Your task to perform on an android device: change keyboard looks Image 0: 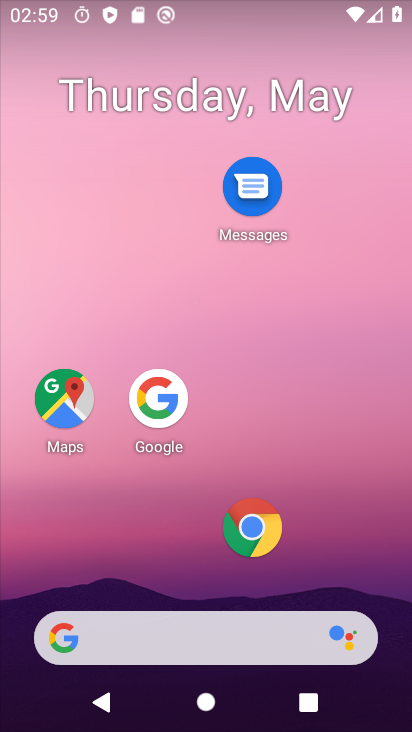
Step 0: click (273, 202)
Your task to perform on an android device: change keyboard looks Image 1: 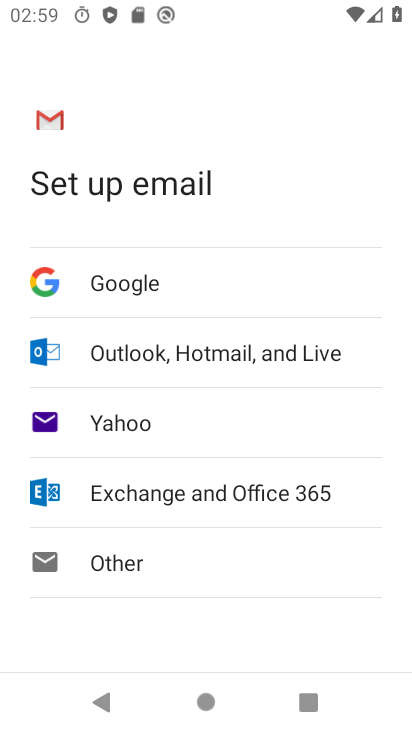
Step 1: press home button
Your task to perform on an android device: change keyboard looks Image 2: 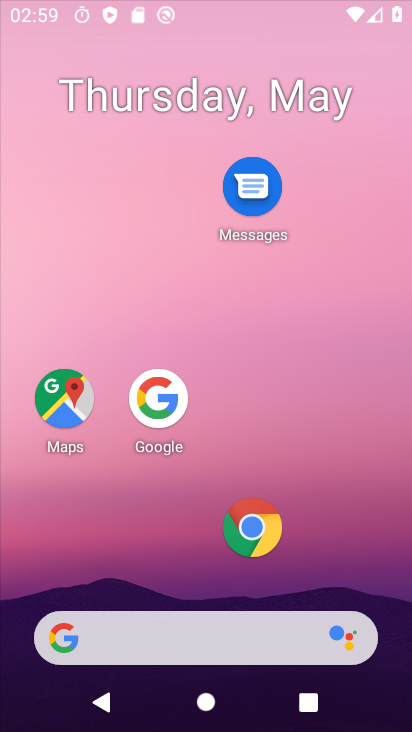
Step 2: drag from (192, 617) to (198, 100)
Your task to perform on an android device: change keyboard looks Image 3: 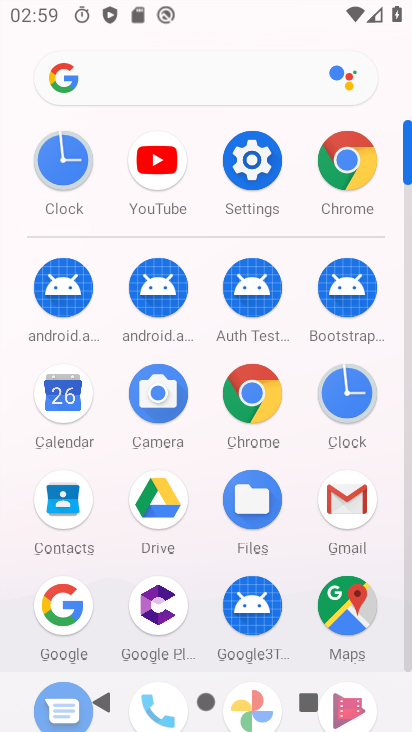
Step 3: drag from (204, 537) to (195, 239)
Your task to perform on an android device: change keyboard looks Image 4: 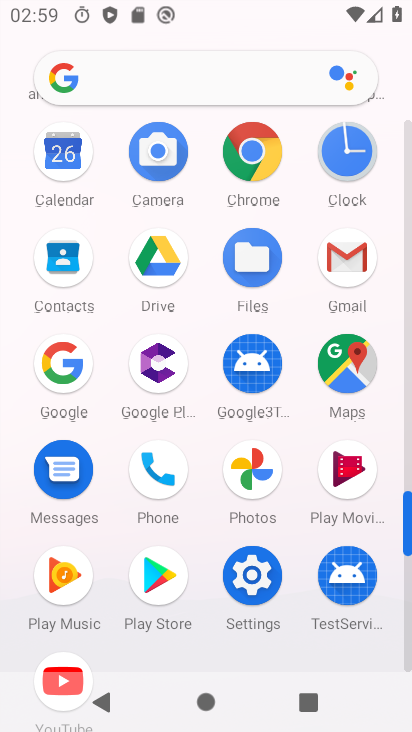
Step 4: click (246, 584)
Your task to perform on an android device: change keyboard looks Image 5: 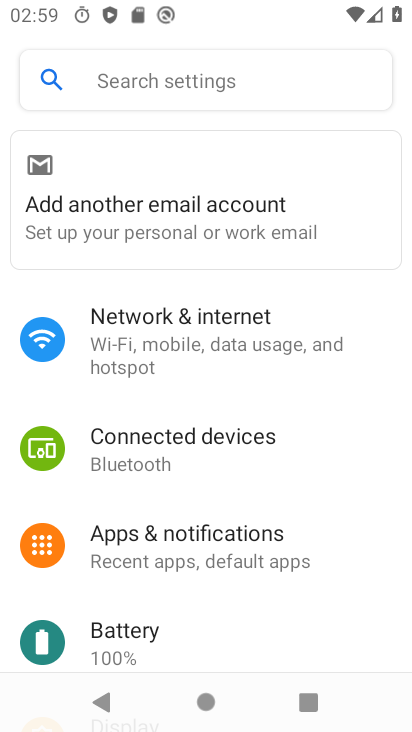
Step 5: drag from (223, 584) to (238, 80)
Your task to perform on an android device: change keyboard looks Image 6: 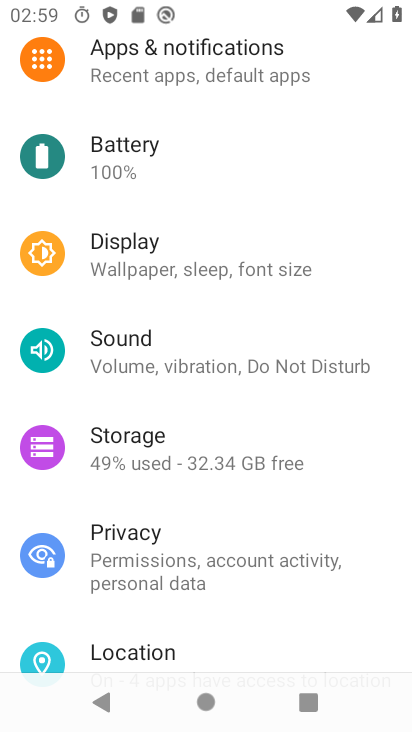
Step 6: drag from (231, 554) to (255, 165)
Your task to perform on an android device: change keyboard looks Image 7: 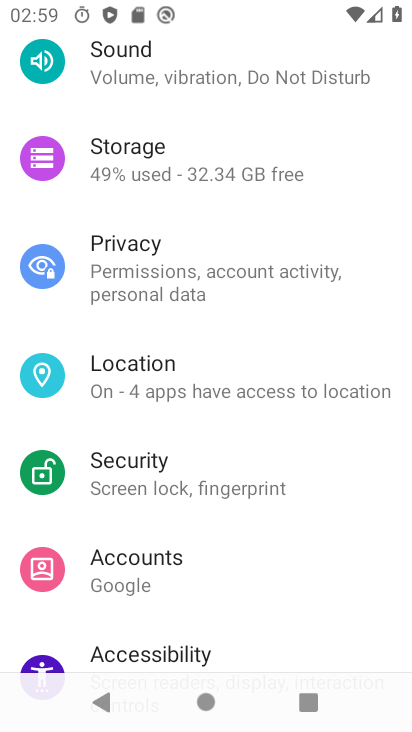
Step 7: drag from (213, 602) to (301, 37)
Your task to perform on an android device: change keyboard looks Image 8: 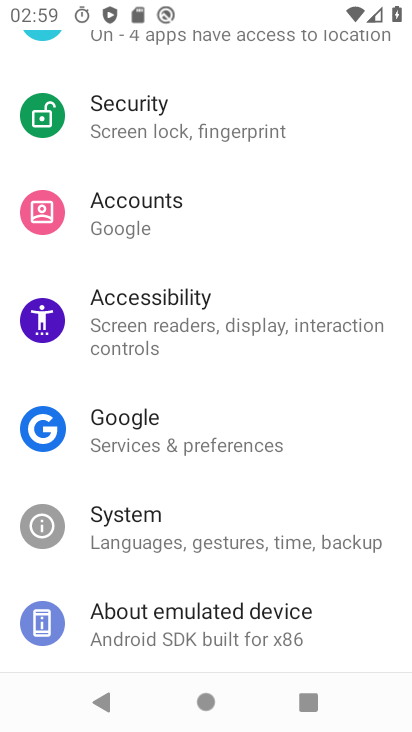
Step 8: click (172, 555)
Your task to perform on an android device: change keyboard looks Image 9: 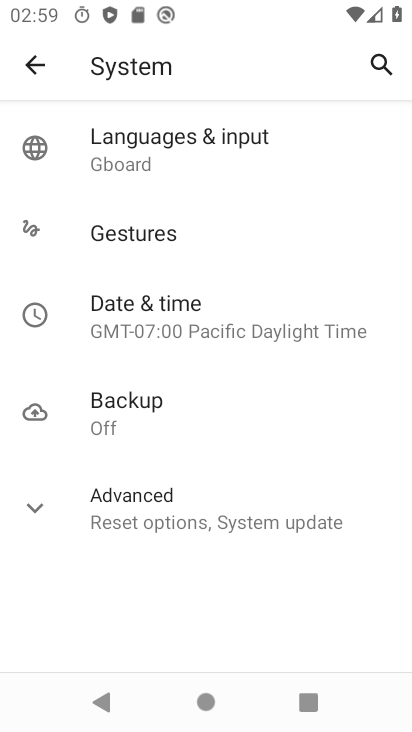
Step 9: click (187, 152)
Your task to perform on an android device: change keyboard looks Image 10: 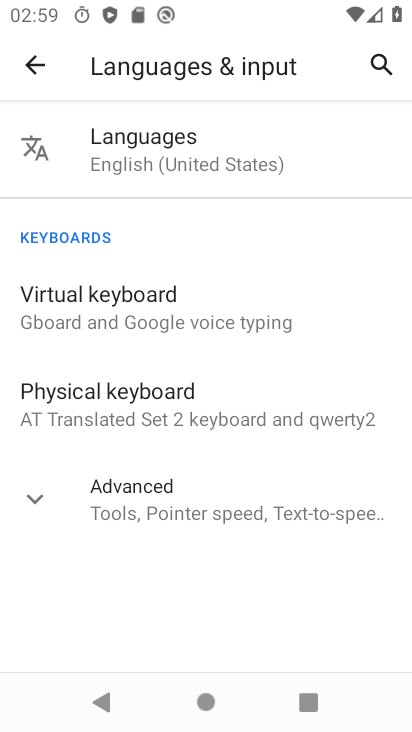
Step 10: click (207, 319)
Your task to perform on an android device: change keyboard looks Image 11: 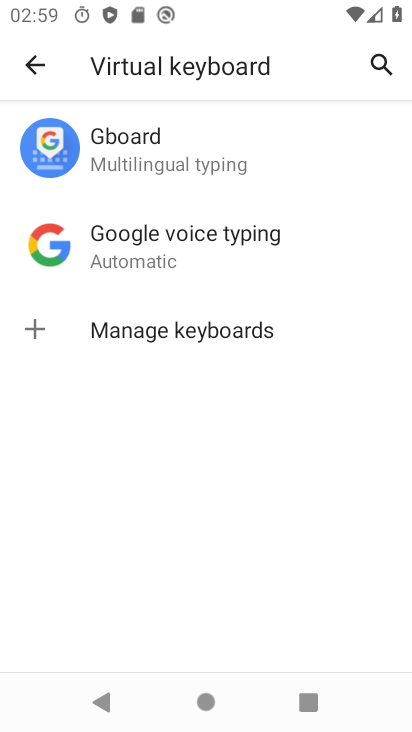
Step 11: click (194, 157)
Your task to perform on an android device: change keyboard looks Image 12: 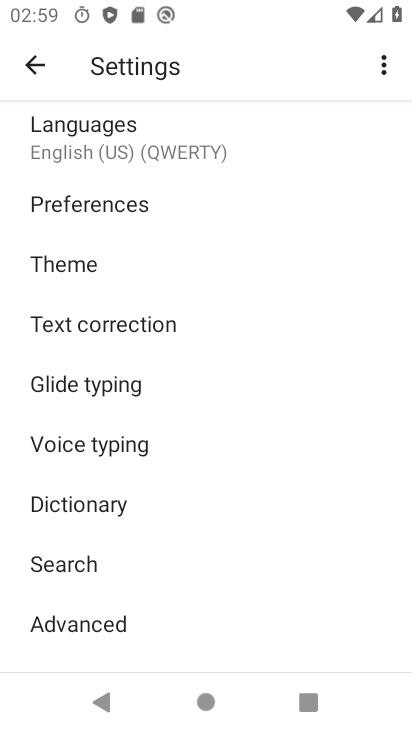
Step 12: click (112, 259)
Your task to perform on an android device: change keyboard looks Image 13: 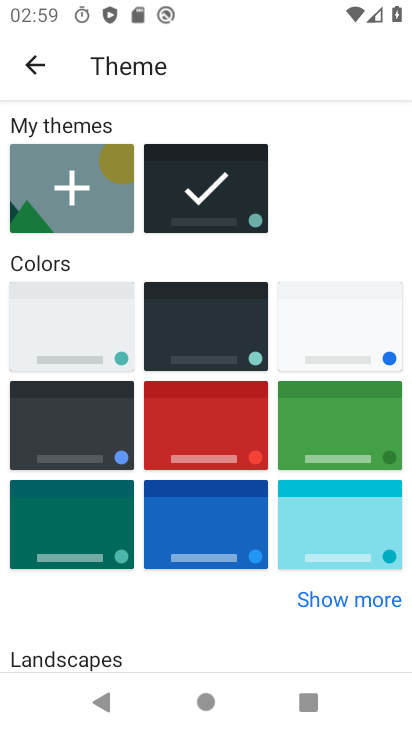
Step 13: click (309, 321)
Your task to perform on an android device: change keyboard looks Image 14: 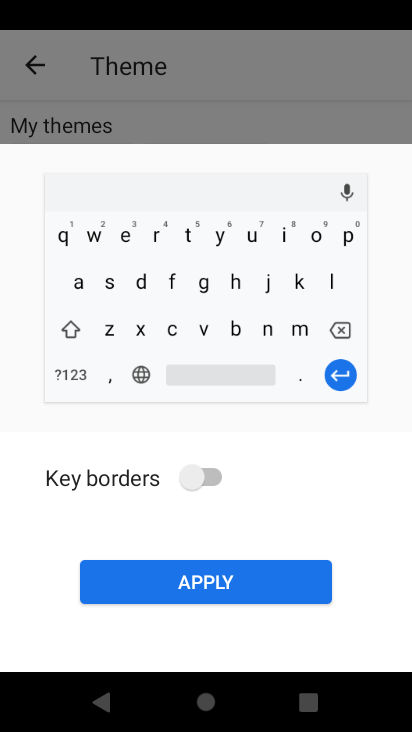
Step 14: click (197, 595)
Your task to perform on an android device: change keyboard looks Image 15: 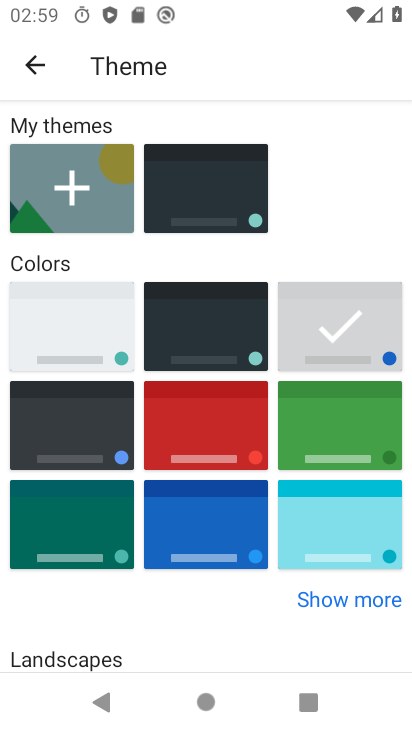
Step 15: task complete